Your task to perform on an android device: turn off notifications settings in the gmail app Image 0: 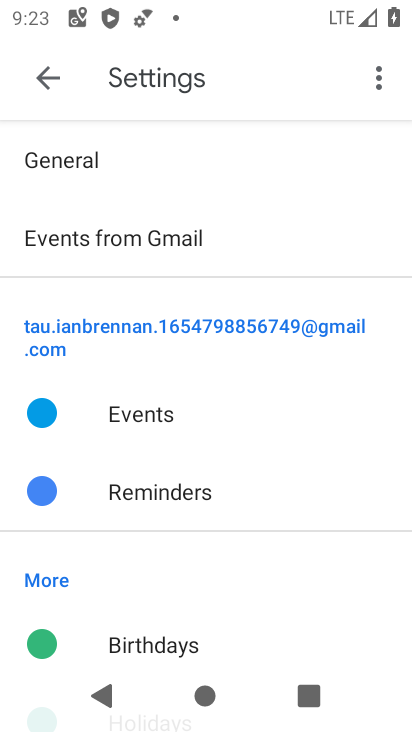
Step 0: press home button
Your task to perform on an android device: turn off notifications settings in the gmail app Image 1: 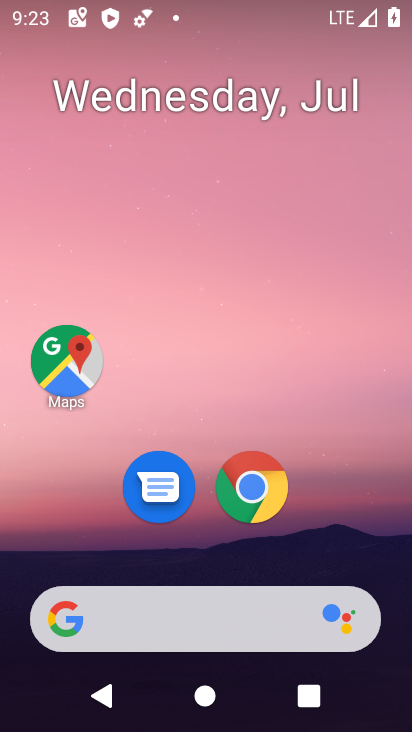
Step 1: drag from (214, 580) to (190, 3)
Your task to perform on an android device: turn off notifications settings in the gmail app Image 2: 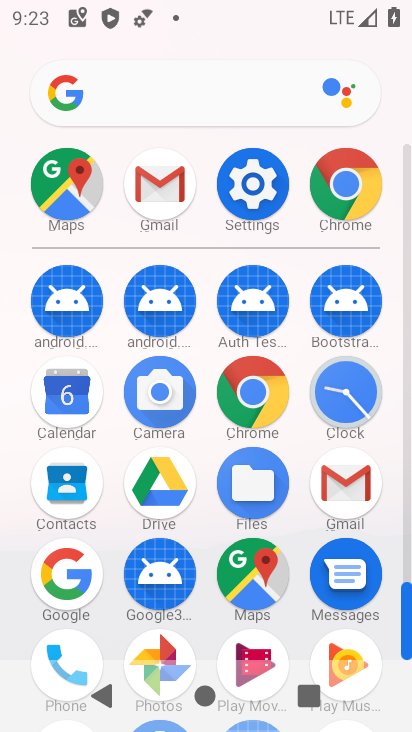
Step 2: click (244, 227)
Your task to perform on an android device: turn off notifications settings in the gmail app Image 3: 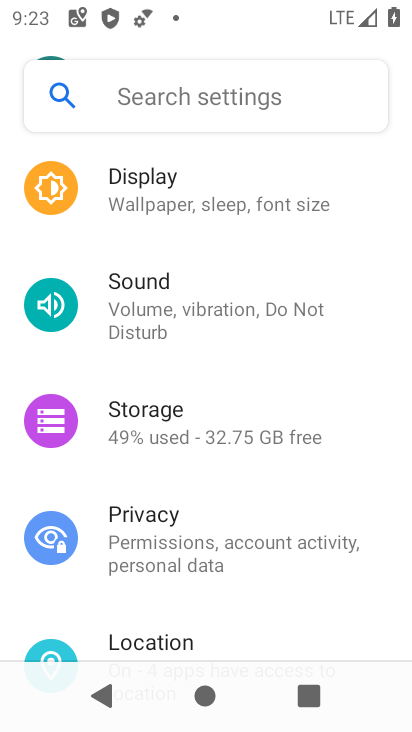
Step 3: press home button
Your task to perform on an android device: turn off notifications settings in the gmail app Image 4: 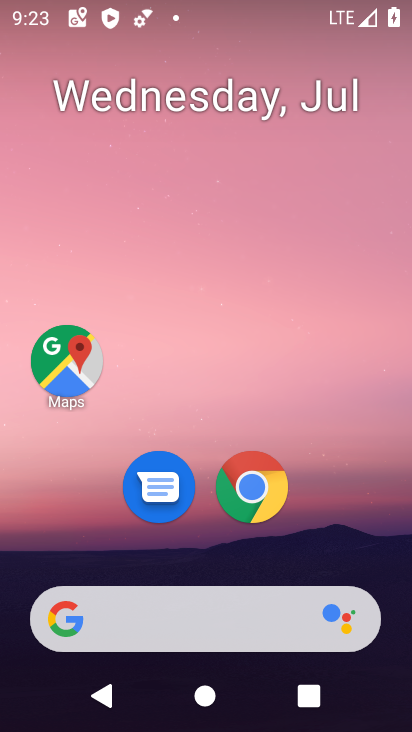
Step 4: drag from (256, 582) to (211, 141)
Your task to perform on an android device: turn off notifications settings in the gmail app Image 5: 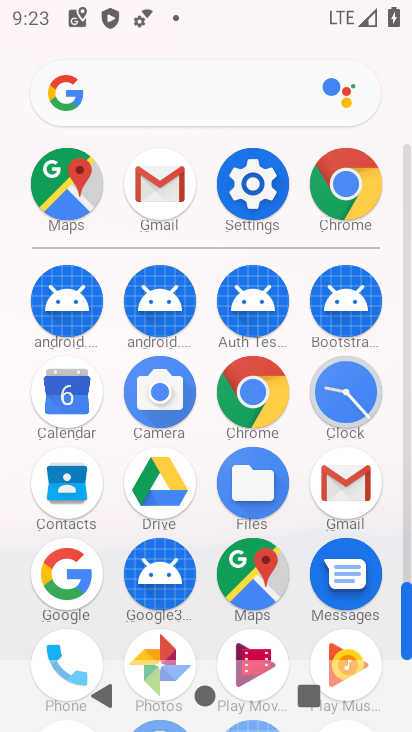
Step 5: click (347, 506)
Your task to perform on an android device: turn off notifications settings in the gmail app Image 6: 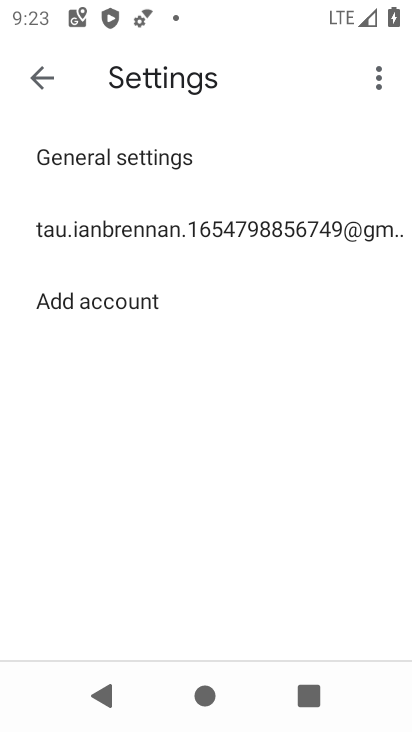
Step 6: click (143, 157)
Your task to perform on an android device: turn off notifications settings in the gmail app Image 7: 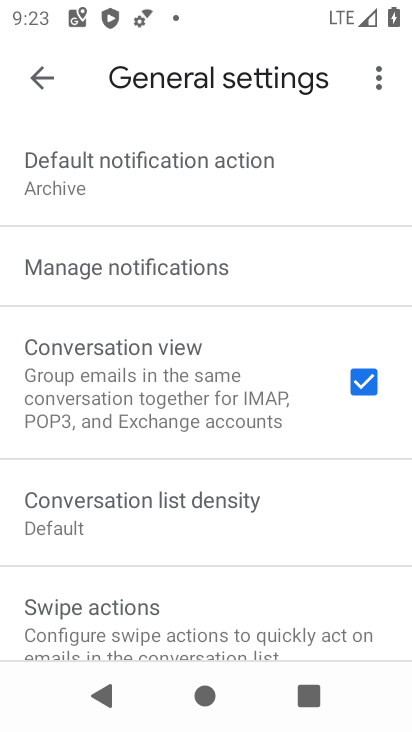
Step 7: click (107, 261)
Your task to perform on an android device: turn off notifications settings in the gmail app Image 8: 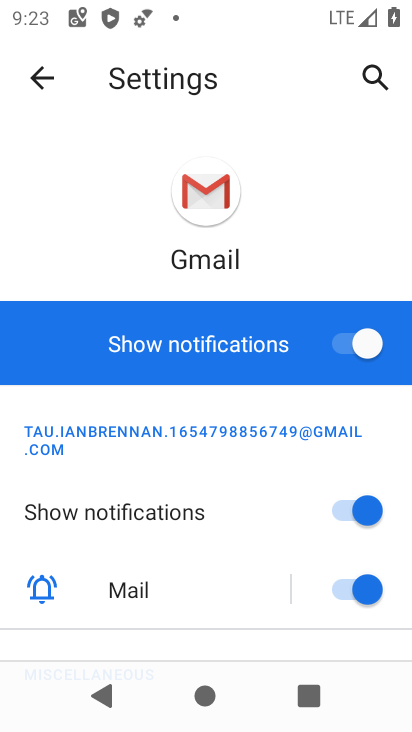
Step 8: click (341, 339)
Your task to perform on an android device: turn off notifications settings in the gmail app Image 9: 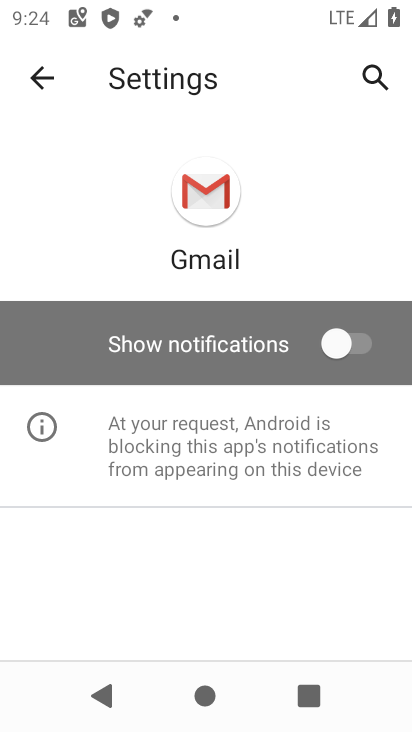
Step 9: task complete